Your task to perform on an android device: Open privacy settings Image 0: 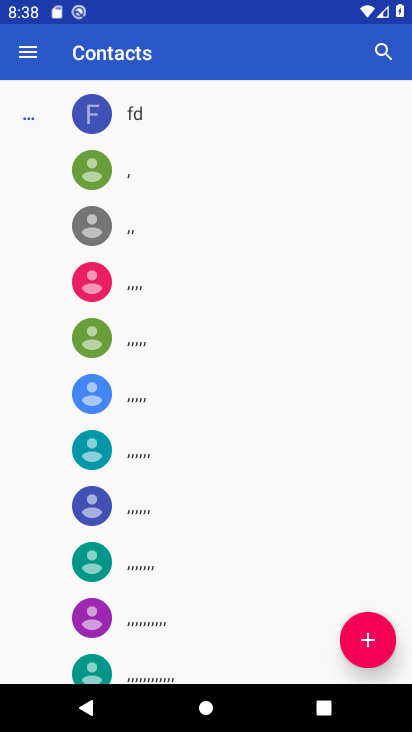
Step 0: press home button
Your task to perform on an android device: Open privacy settings Image 1: 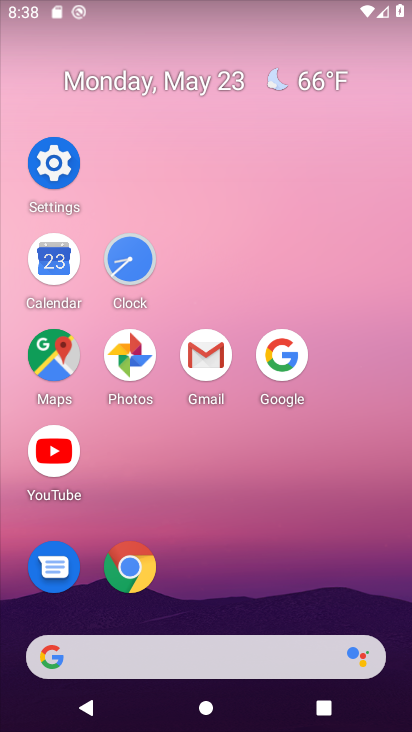
Step 1: click (48, 162)
Your task to perform on an android device: Open privacy settings Image 2: 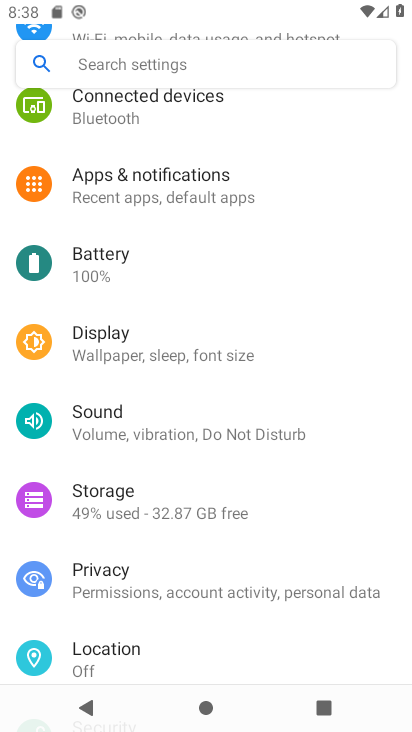
Step 2: click (239, 580)
Your task to perform on an android device: Open privacy settings Image 3: 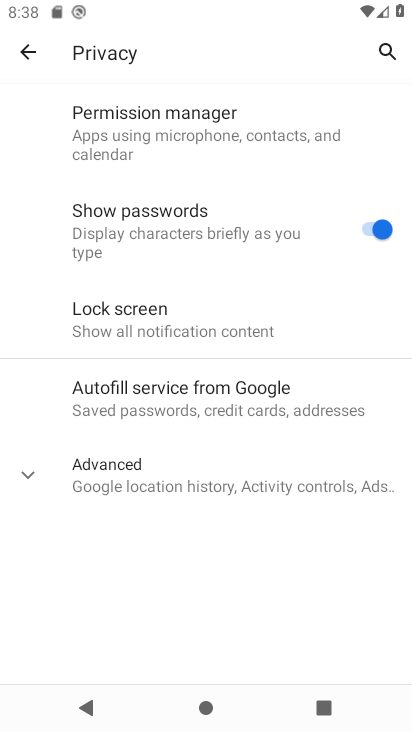
Step 3: task complete